Your task to perform on an android device: check out phone information Image 0: 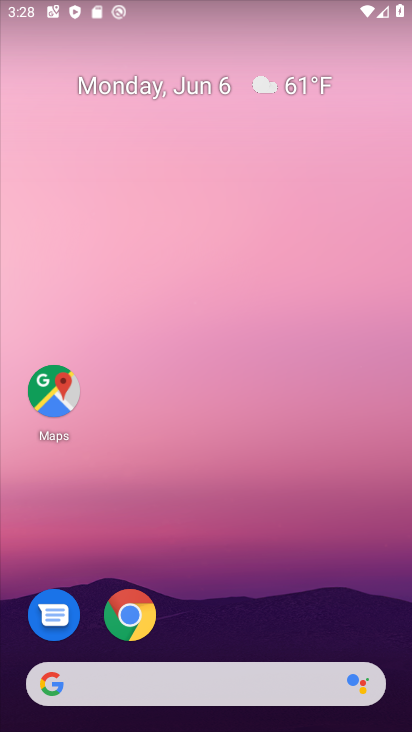
Step 0: drag from (364, 637) to (308, 97)
Your task to perform on an android device: check out phone information Image 1: 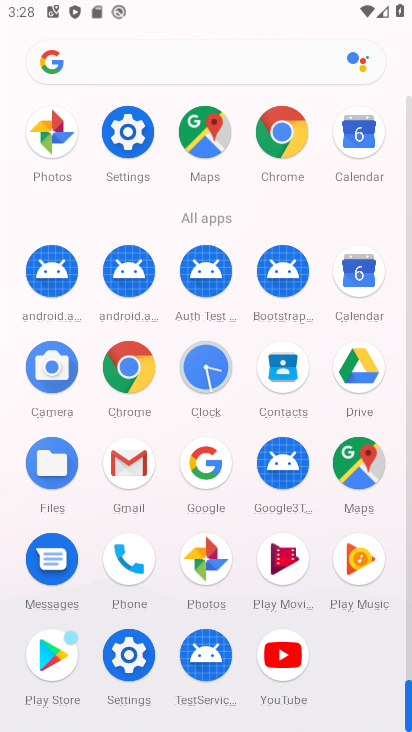
Step 1: click (131, 655)
Your task to perform on an android device: check out phone information Image 2: 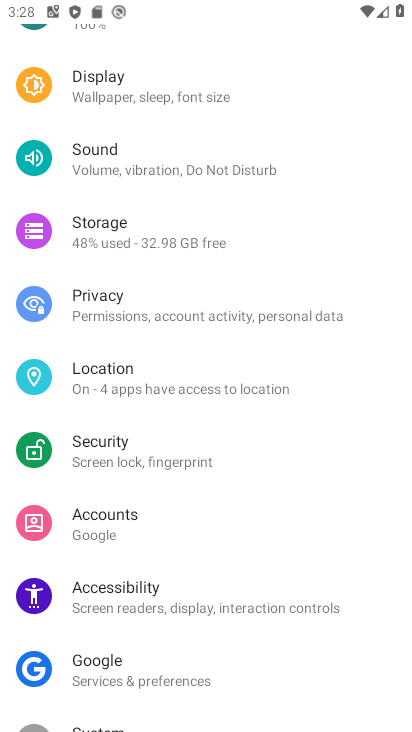
Step 2: click (360, 217)
Your task to perform on an android device: check out phone information Image 3: 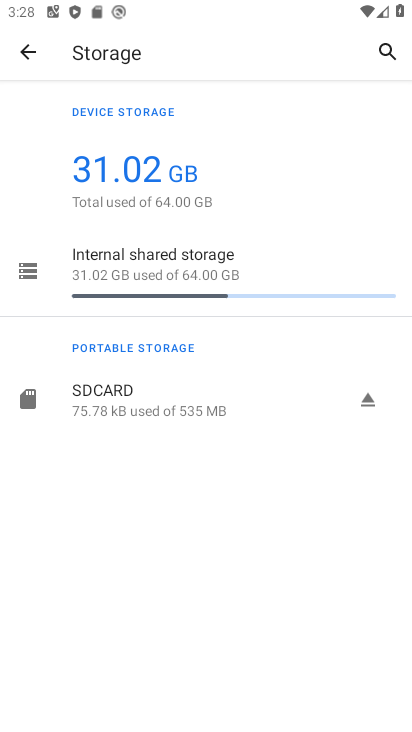
Step 3: press back button
Your task to perform on an android device: check out phone information Image 4: 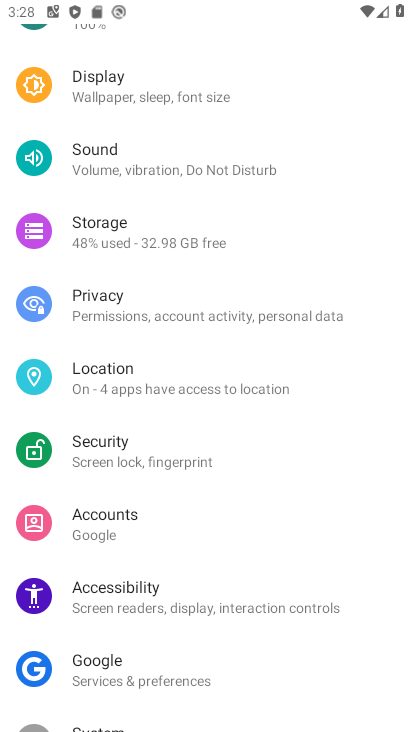
Step 4: drag from (338, 614) to (341, 222)
Your task to perform on an android device: check out phone information Image 5: 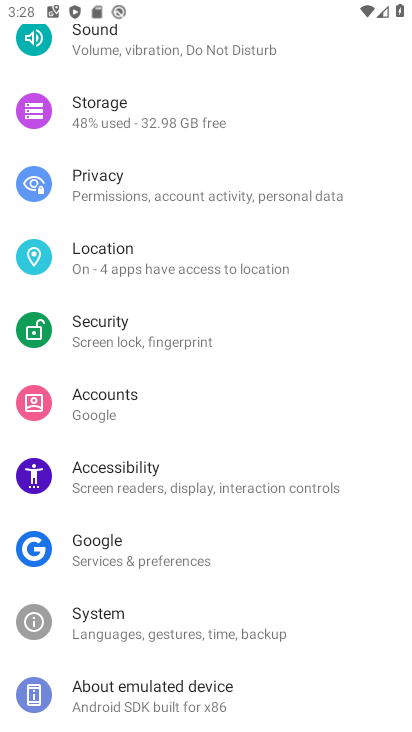
Step 5: click (89, 688)
Your task to perform on an android device: check out phone information Image 6: 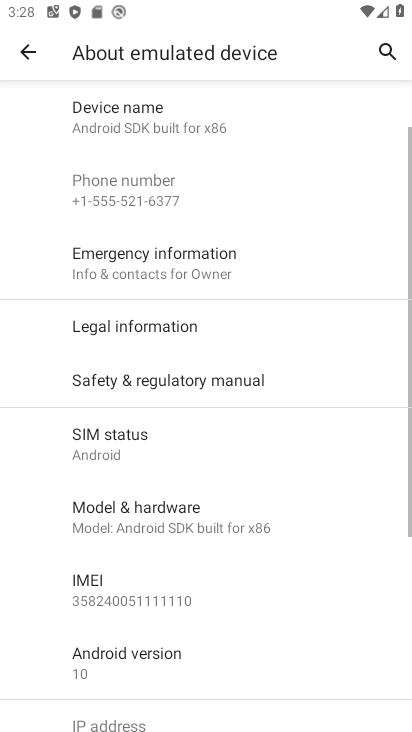
Step 6: task complete